Your task to perform on an android device: Go to Amazon Image 0: 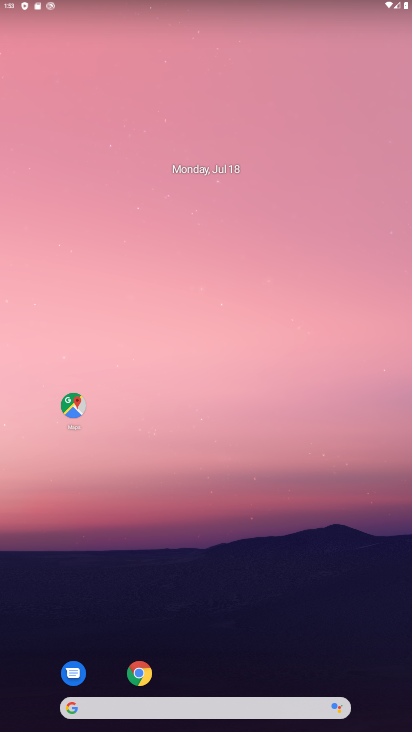
Step 0: click (145, 675)
Your task to perform on an android device: Go to Amazon Image 1: 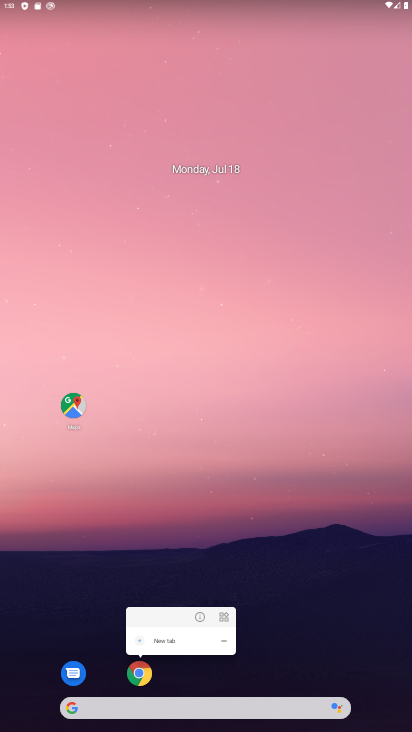
Step 1: click (144, 676)
Your task to perform on an android device: Go to Amazon Image 2: 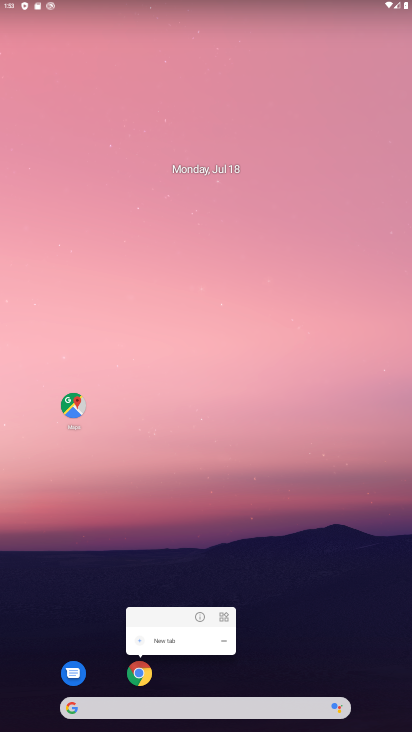
Step 2: click (136, 676)
Your task to perform on an android device: Go to Amazon Image 3: 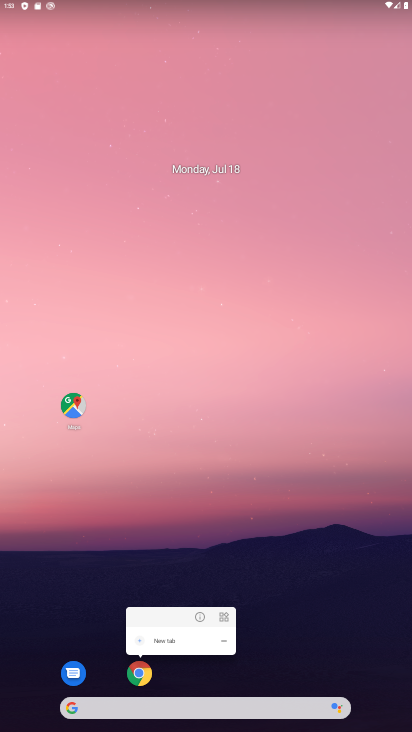
Step 3: click (138, 673)
Your task to perform on an android device: Go to Amazon Image 4: 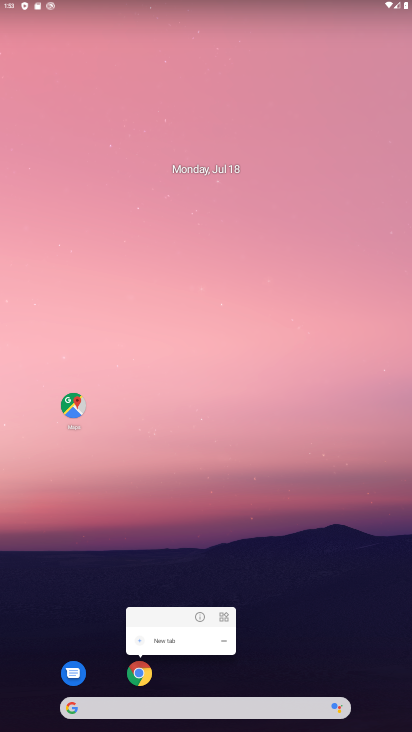
Step 4: click (138, 673)
Your task to perform on an android device: Go to Amazon Image 5: 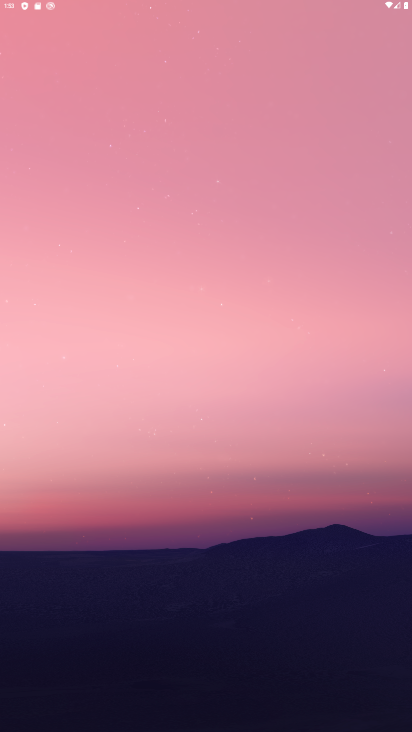
Step 5: drag from (257, 652) to (343, 64)
Your task to perform on an android device: Go to Amazon Image 6: 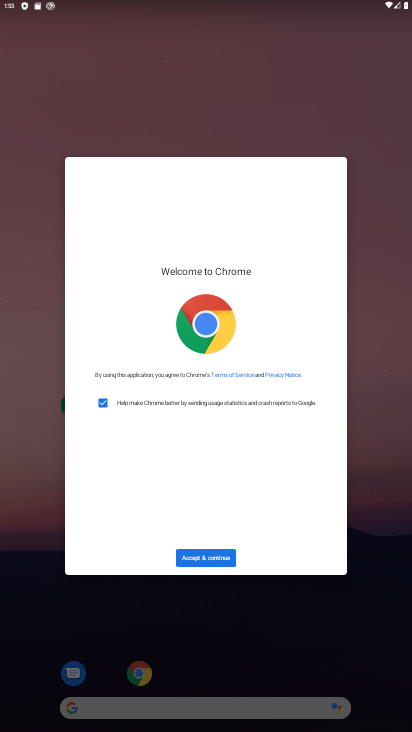
Step 6: click (213, 561)
Your task to perform on an android device: Go to Amazon Image 7: 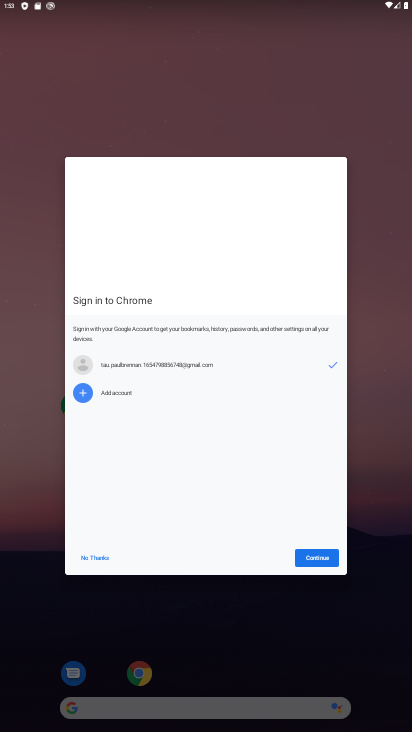
Step 7: click (307, 560)
Your task to perform on an android device: Go to Amazon Image 8: 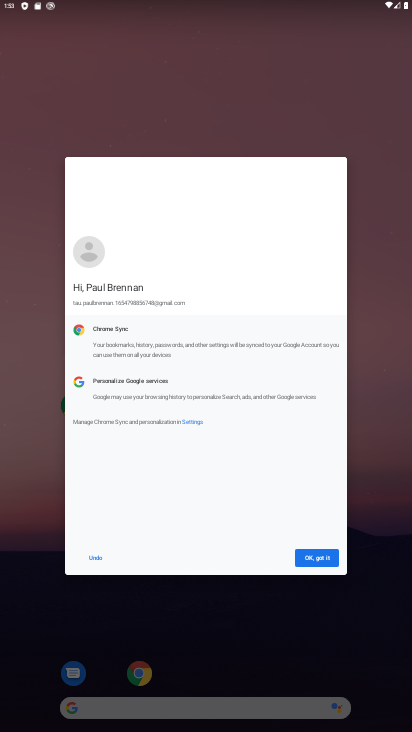
Step 8: click (310, 561)
Your task to perform on an android device: Go to Amazon Image 9: 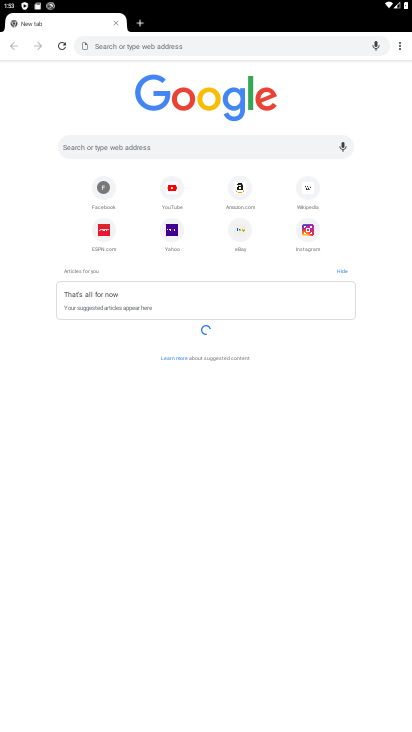
Step 9: click (247, 179)
Your task to perform on an android device: Go to Amazon Image 10: 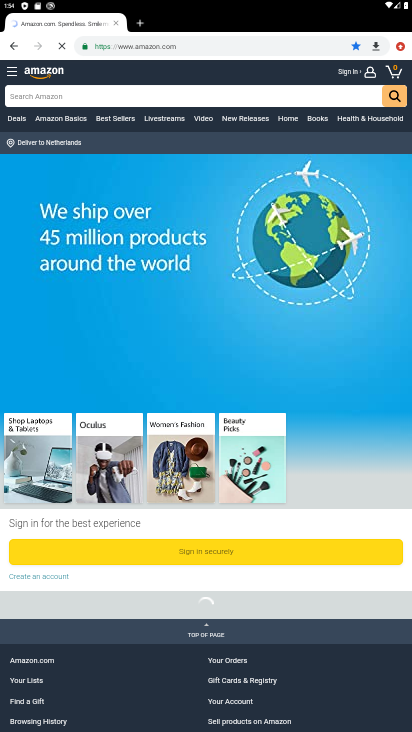
Step 10: task complete